Your task to perform on an android device: Go to Android settings Image 0: 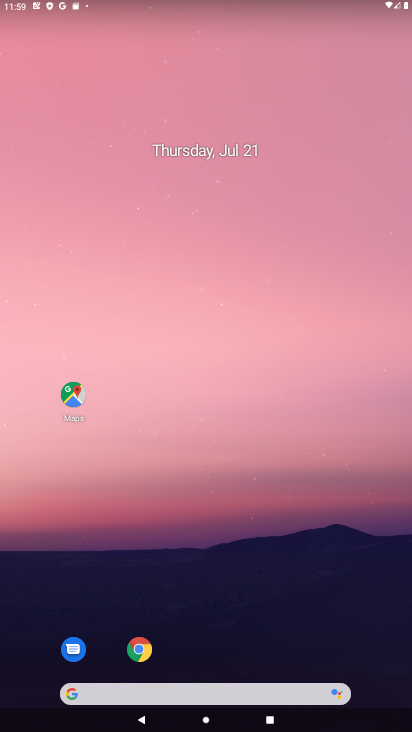
Step 0: drag from (231, 707) to (208, 140)
Your task to perform on an android device: Go to Android settings Image 1: 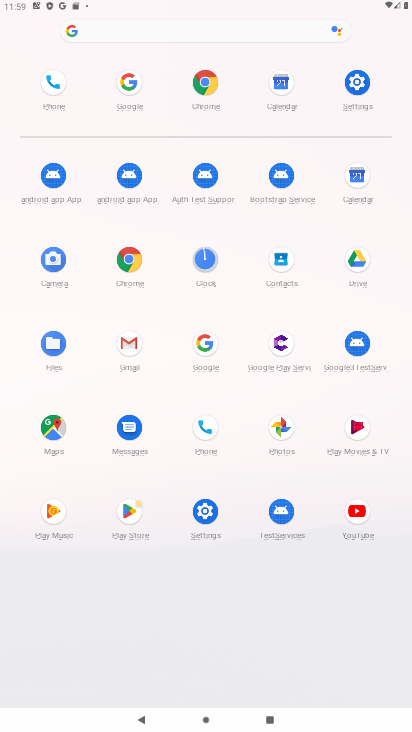
Step 1: click (354, 83)
Your task to perform on an android device: Go to Android settings Image 2: 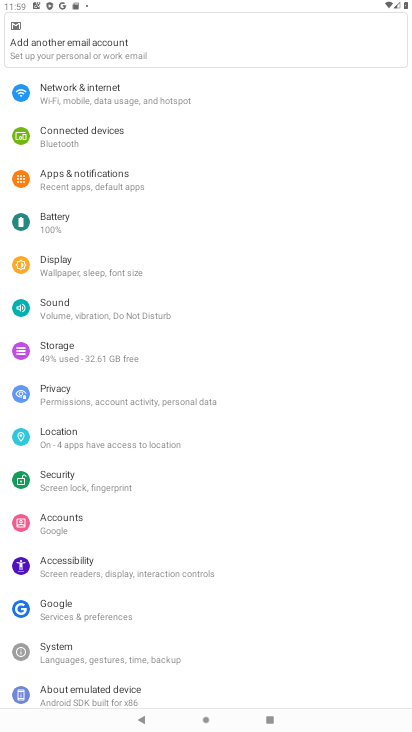
Step 2: task complete